Your task to perform on an android device: Open the map Image 0: 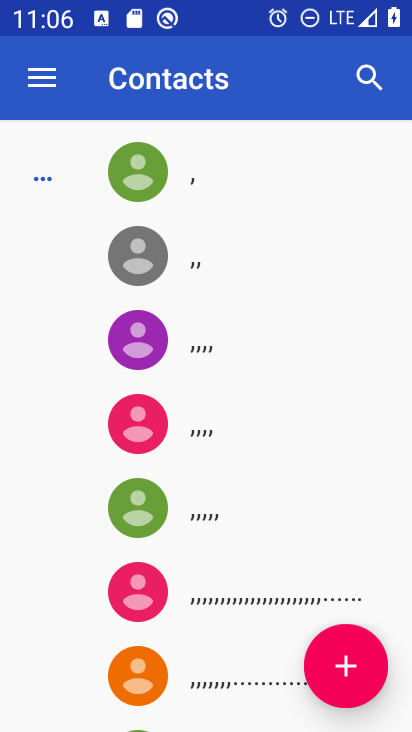
Step 0: press home button
Your task to perform on an android device: Open the map Image 1: 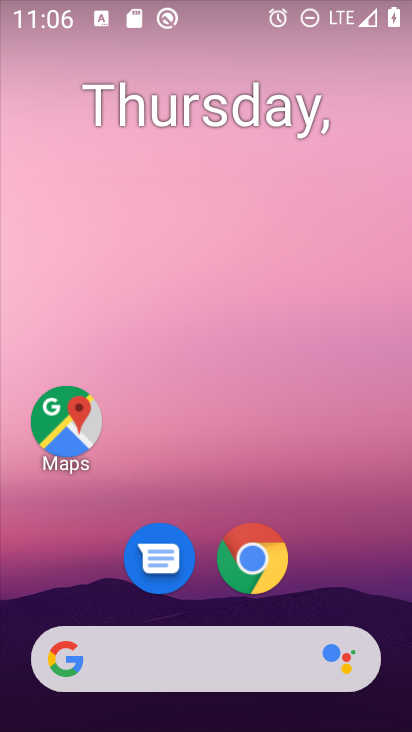
Step 1: click (64, 419)
Your task to perform on an android device: Open the map Image 2: 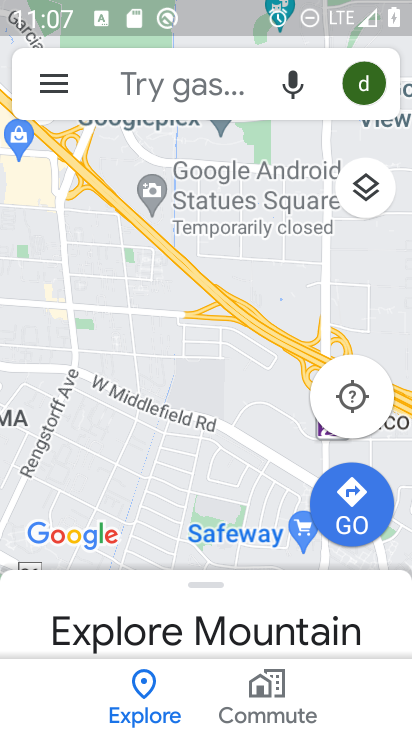
Step 2: task complete